Your task to perform on an android device: Open Google Chrome and click the shortcut for Amazon.com Image 0: 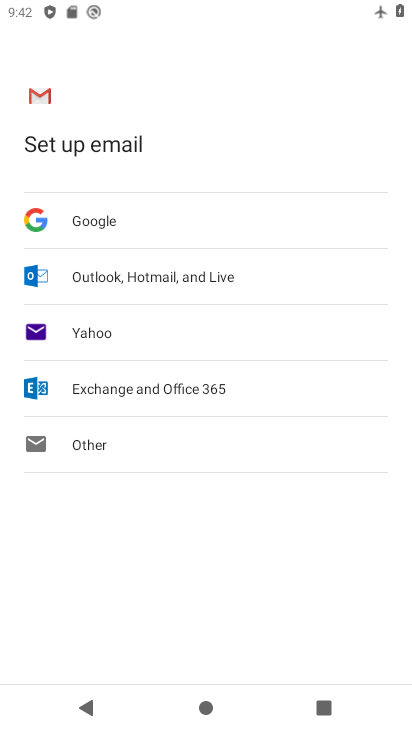
Step 0: press home button
Your task to perform on an android device: Open Google Chrome and click the shortcut for Amazon.com Image 1: 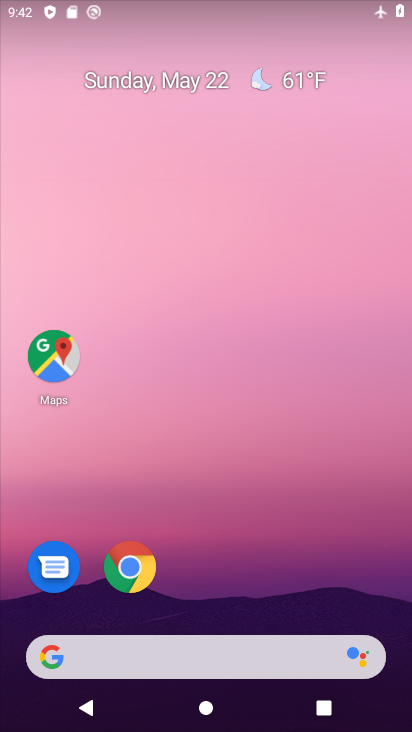
Step 1: click (125, 564)
Your task to perform on an android device: Open Google Chrome and click the shortcut for Amazon.com Image 2: 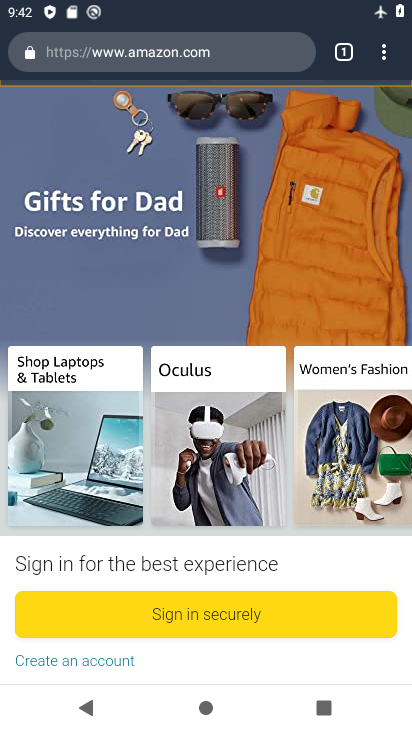
Step 2: task complete